Your task to perform on an android device: set default search engine in the chrome app Image 0: 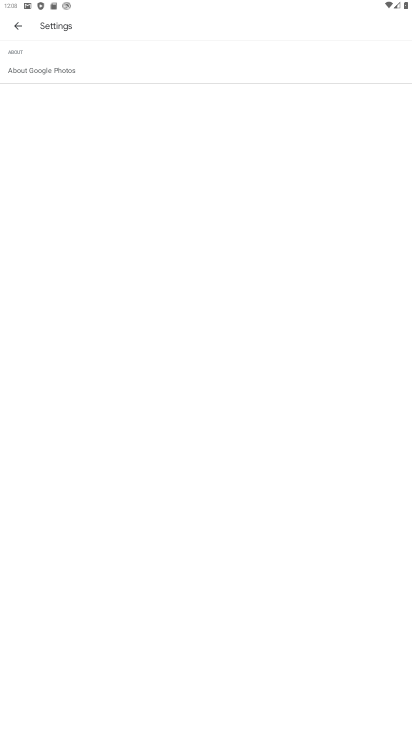
Step 0: press home button
Your task to perform on an android device: set default search engine in the chrome app Image 1: 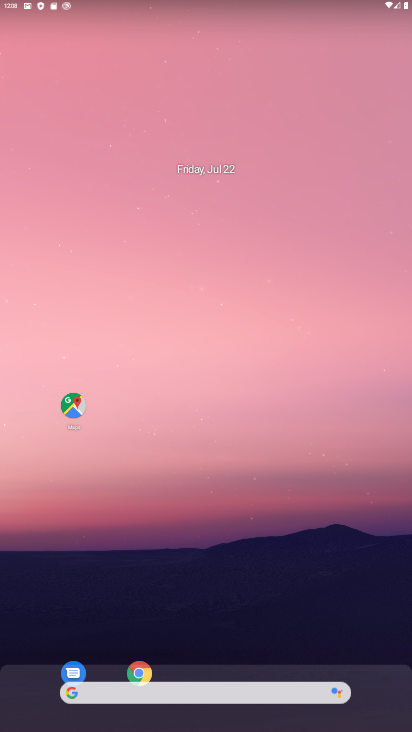
Step 1: click (134, 672)
Your task to perform on an android device: set default search engine in the chrome app Image 2: 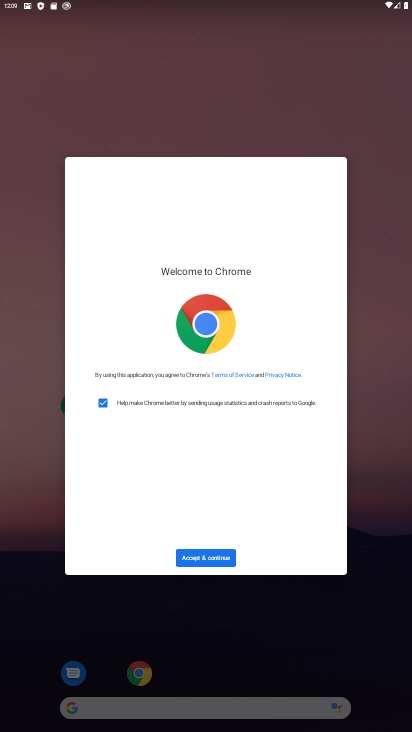
Step 2: click (208, 560)
Your task to perform on an android device: set default search engine in the chrome app Image 3: 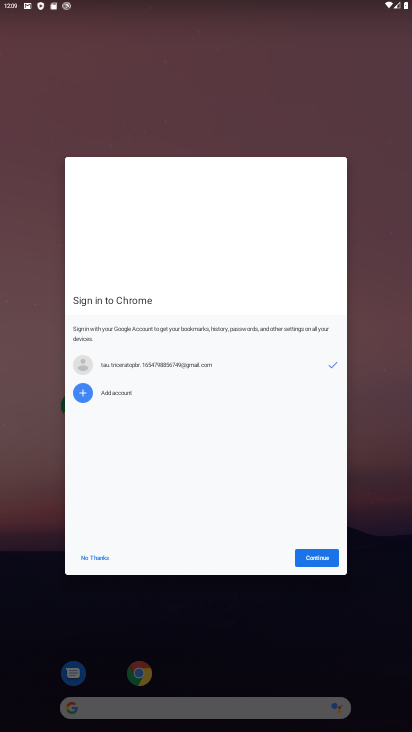
Step 3: click (333, 557)
Your task to perform on an android device: set default search engine in the chrome app Image 4: 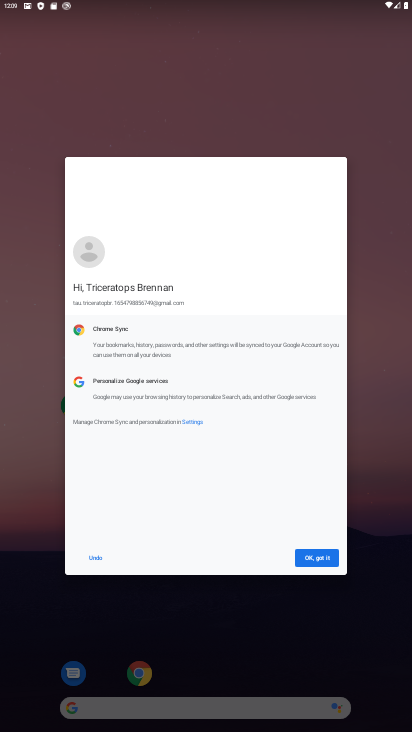
Step 4: click (324, 558)
Your task to perform on an android device: set default search engine in the chrome app Image 5: 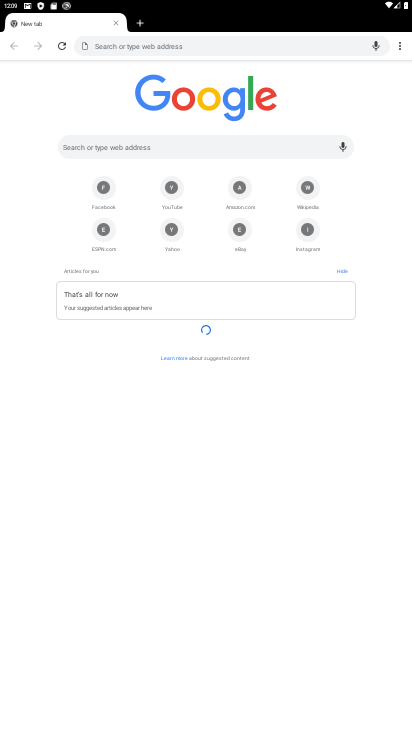
Step 5: click (397, 50)
Your task to perform on an android device: set default search engine in the chrome app Image 6: 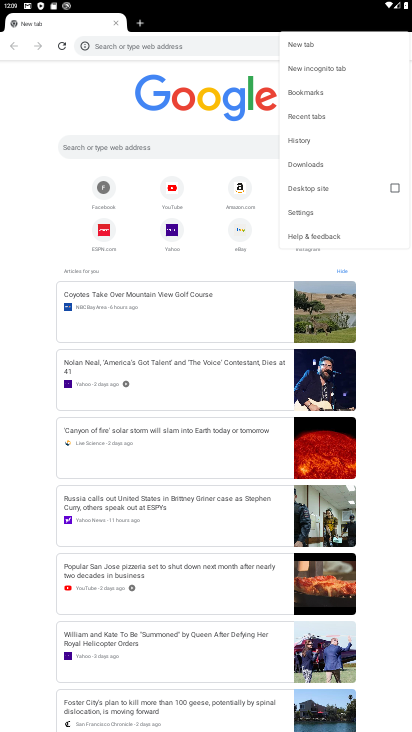
Step 6: click (310, 215)
Your task to perform on an android device: set default search engine in the chrome app Image 7: 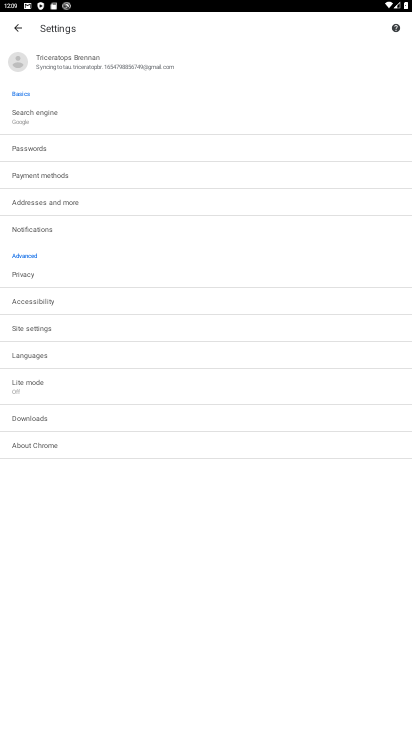
Step 7: click (6, 115)
Your task to perform on an android device: set default search engine in the chrome app Image 8: 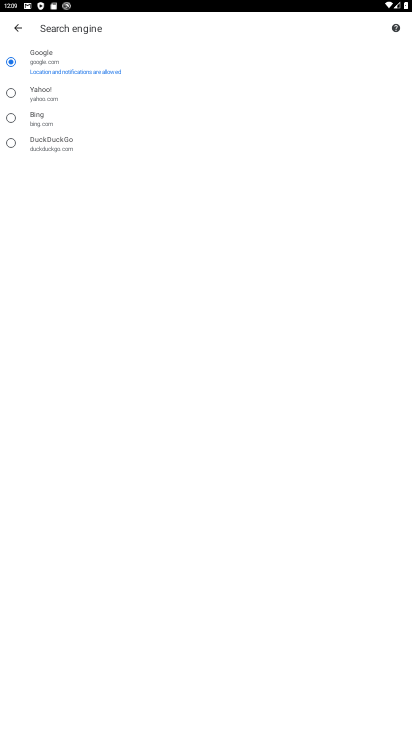
Step 8: click (29, 100)
Your task to perform on an android device: set default search engine in the chrome app Image 9: 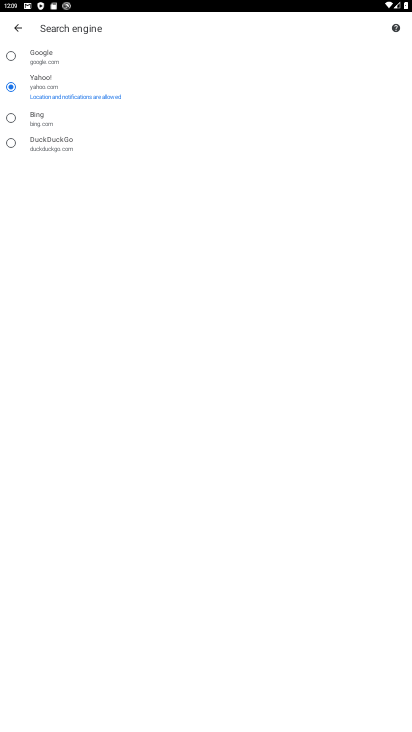
Step 9: task complete